Your task to perform on an android device: Search for Mexican restaurants on Maps Image 0: 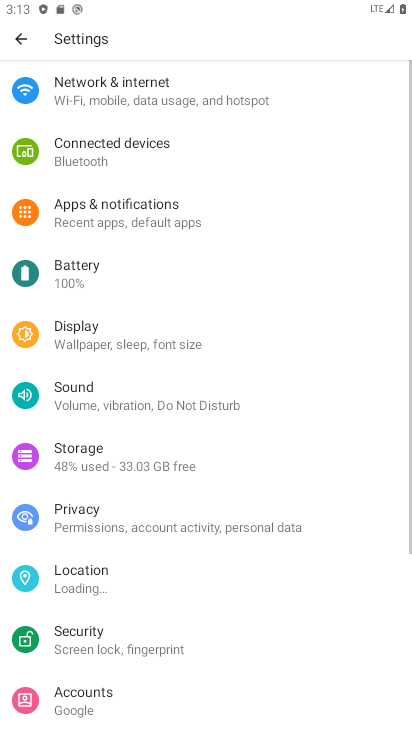
Step 0: press home button
Your task to perform on an android device: Search for Mexican restaurants on Maps Image 1: 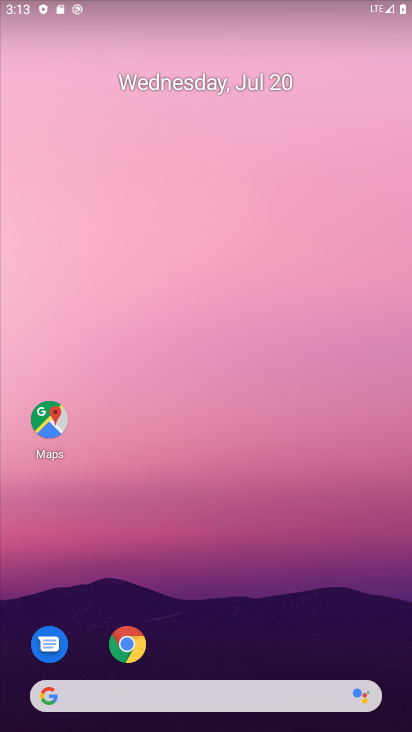
Step 1: click (50, 427)
Your task to perform on an android device: Search for Mexican restaurants on Maps Image 2: 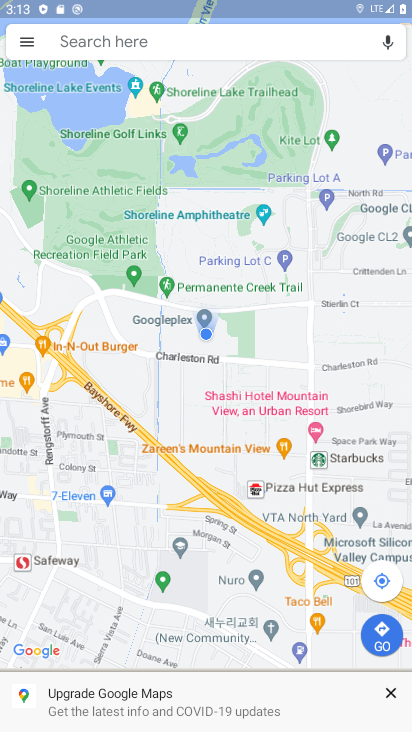
Step 2: click (84, 35)
Your task to perform on an android device: Search for Mexican restaurants on Maps Image 3: 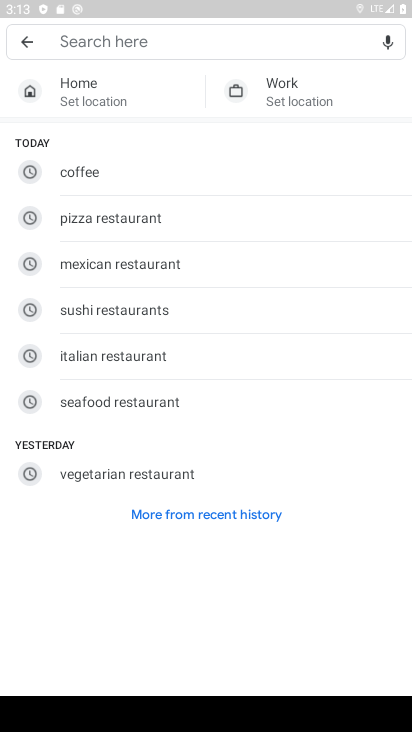
Step 3: click (136, 261)
Your task to perform on an android device: Search for Mexican restaurants on Maps Image 4: 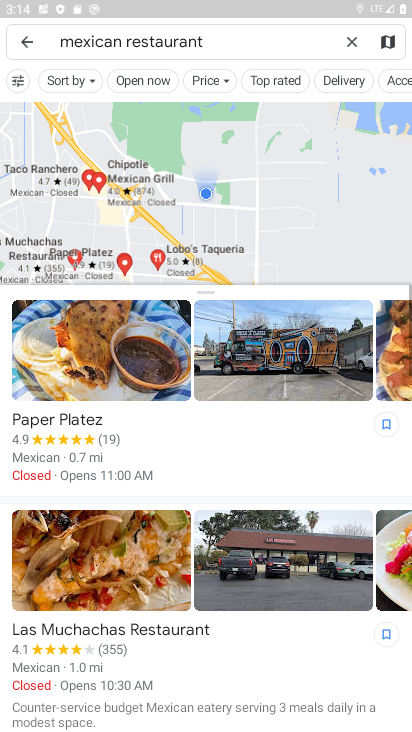
Step 4: task complete